Your task to perform on an android device: toggle wifi Image 0: 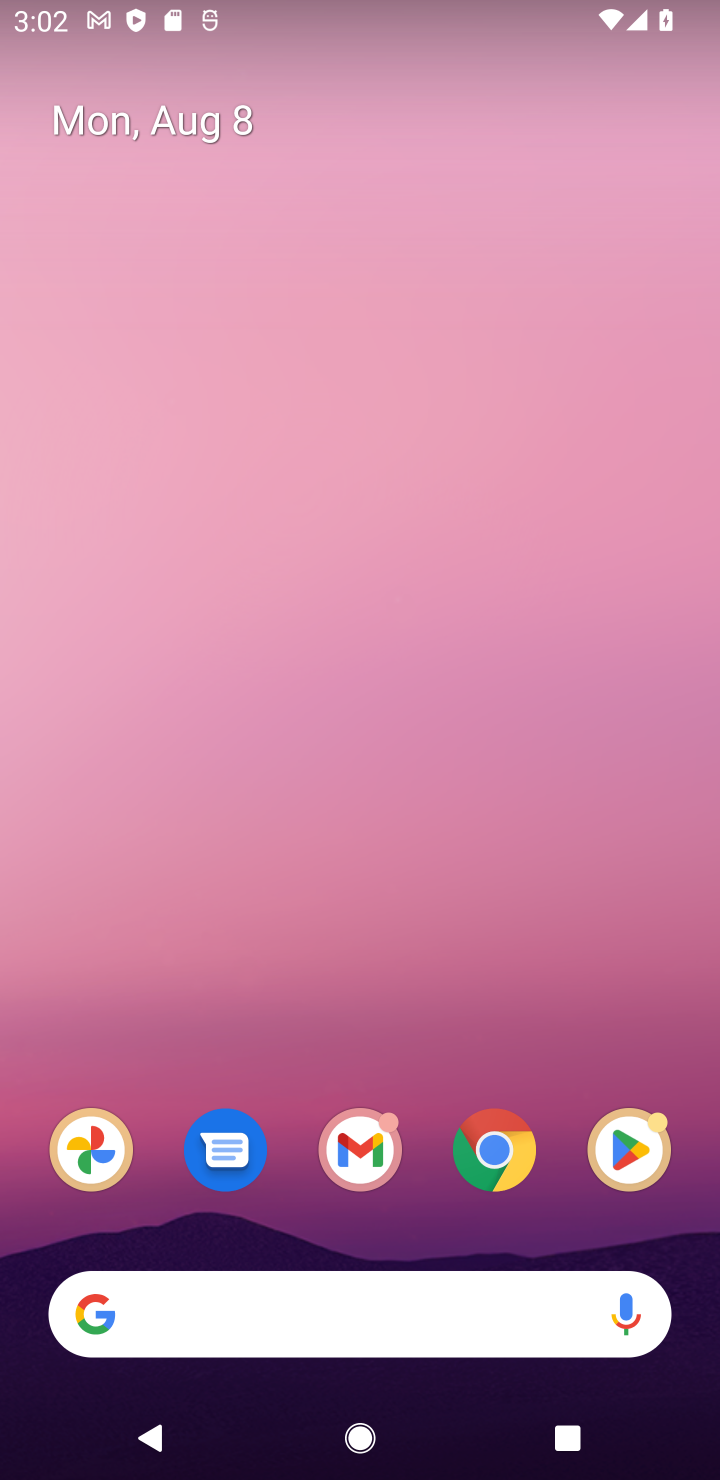
Step 0: task complete